Your task to perform on an android device: Clear the cart on target.com. Search for logitech g502 on target.com, select the first entry, and add it to the cart. Image 0: 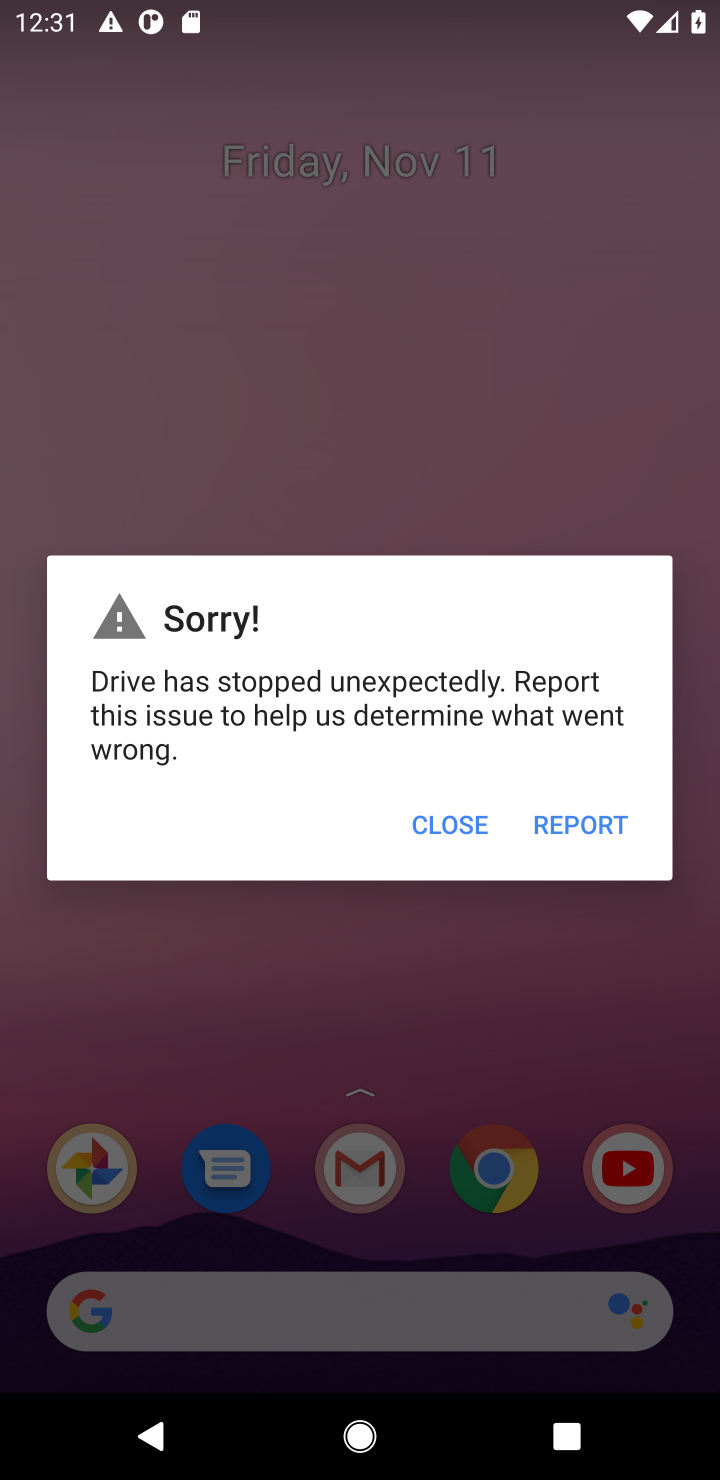
Step 0: press home button
Your task to perform on an android device: Clear the cart on target.com. Search for logitech g502 on target.com, select the first entry, and add it to the cart. Image 1: 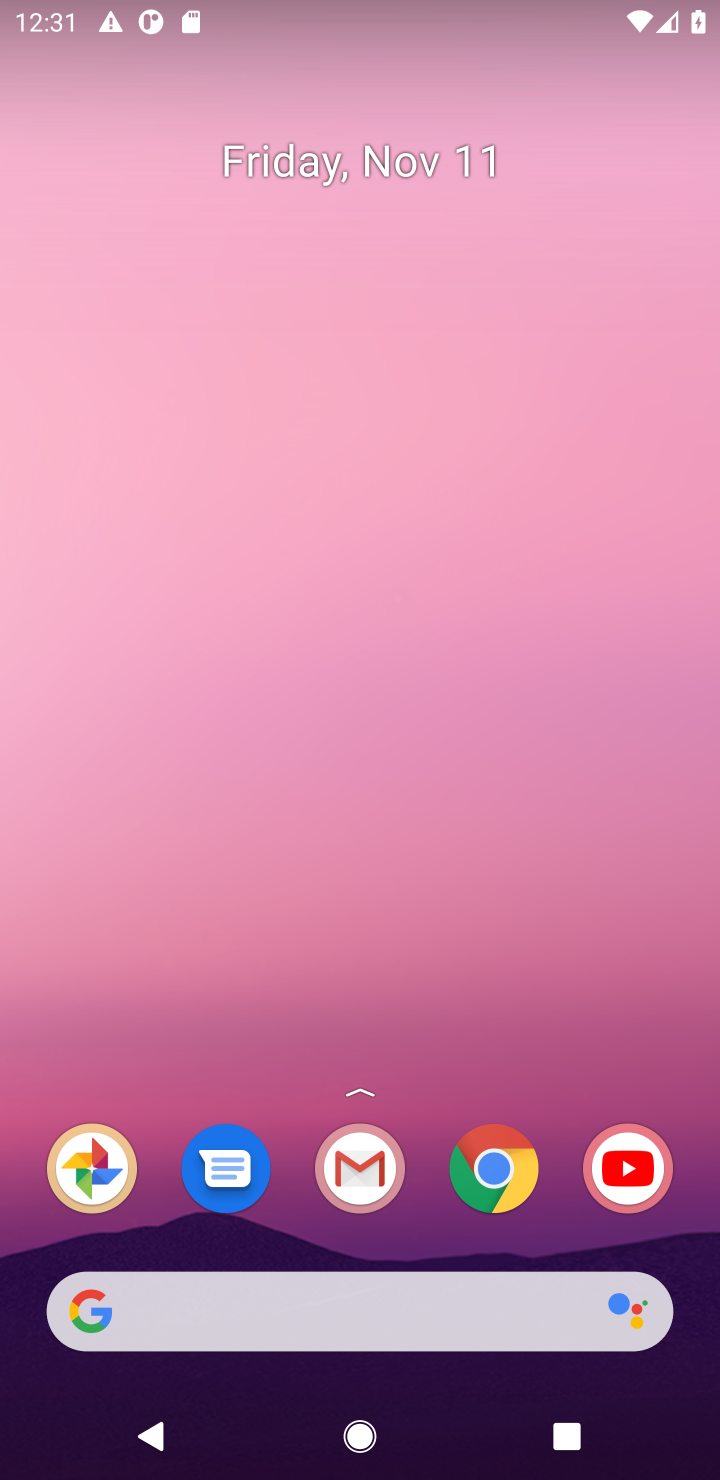
Step 1: click (490, 1175)
Your task to perform on an android device: Clear the cart on target.com. Search for logitech g502 on target.com, select the first entry, and add it to the cart. Image 2: 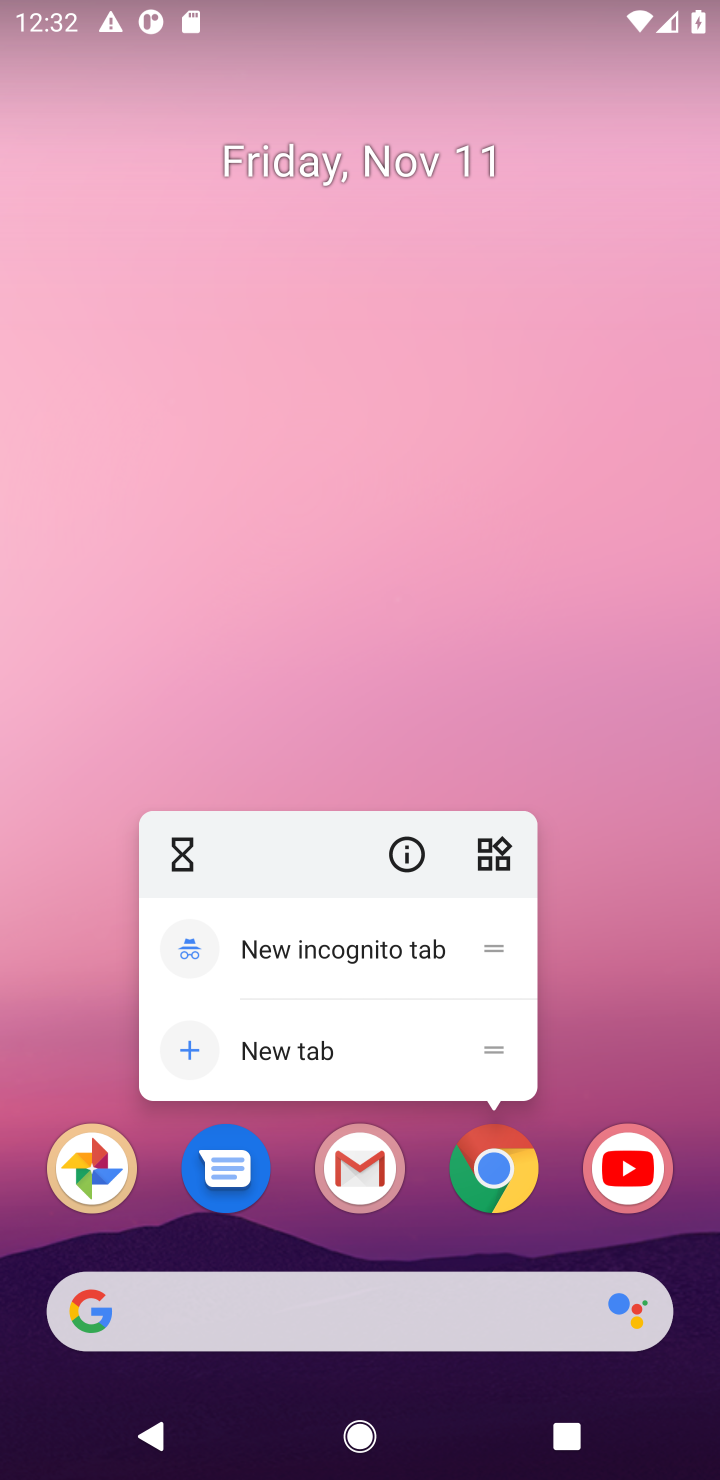
Step 2: click (490, 1175)
Your task to perform on an android device: Clear the cart on target.com. Search for logitech g502 on target.com, select the first entry, and add it to the cart. Image 3: 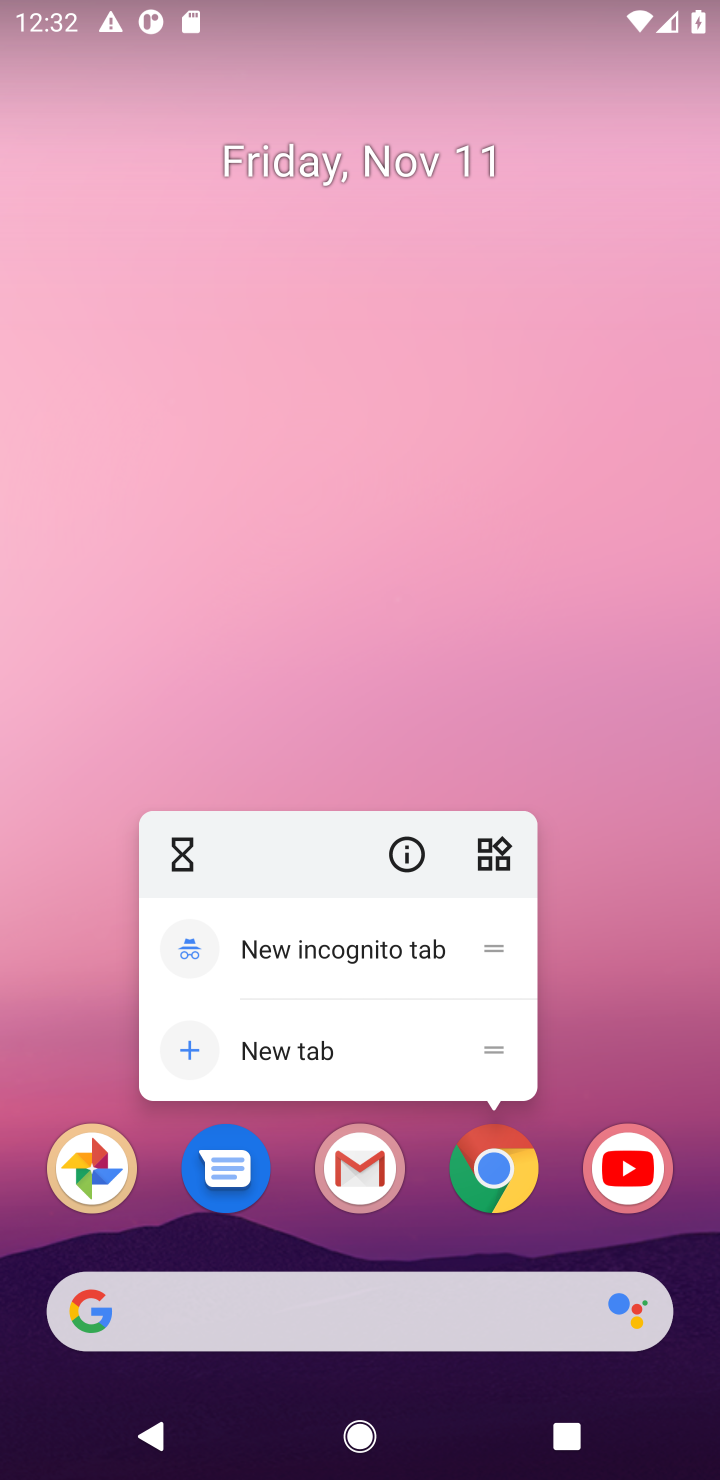
Step 3: click (488, 1176)
Your task to perform on an android device: Clear the cart on target.com. Search for logitech g502 on target.com, select the first entry, and add it to the cart. Image 4: 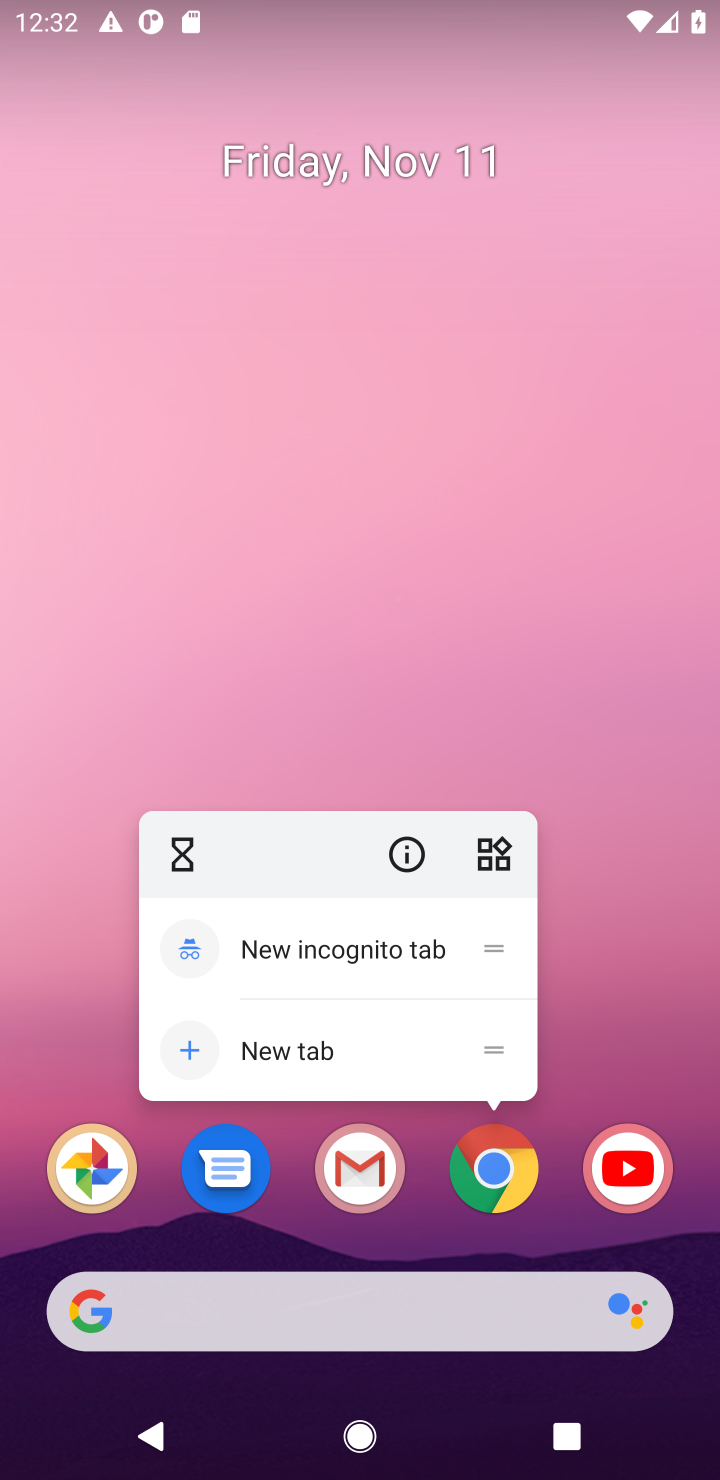
Step 4: click (520, 1174)
Your task to perform on an android device: Clear the cart on target.com. Search for logitech g502 on target.com, select the first entry, and add it to the cart. Image 5: 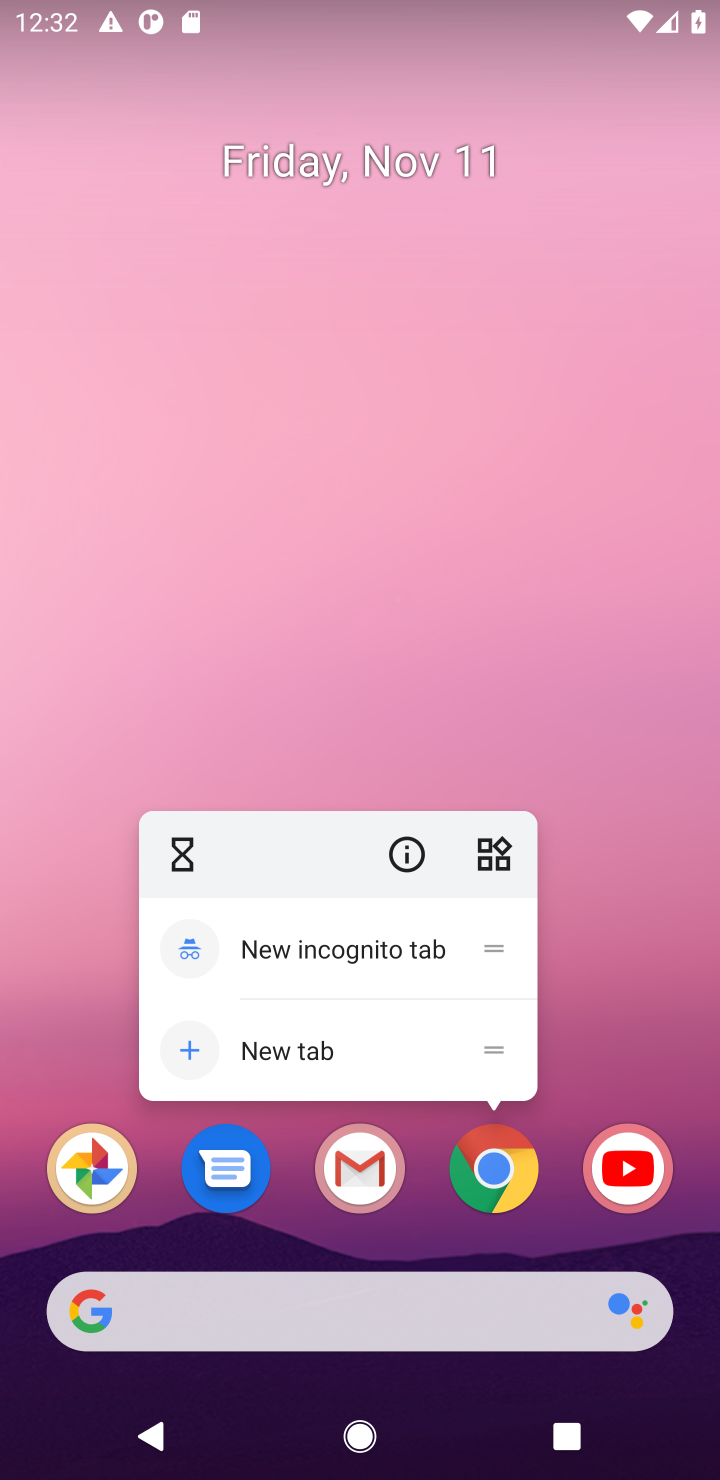
Step 5: click (484, 1183)
Your task to perform on an android device: Clear the cart on target.com. Search for logitech g502 on target.com, select the first entry, and add it to the cart. Image 6: 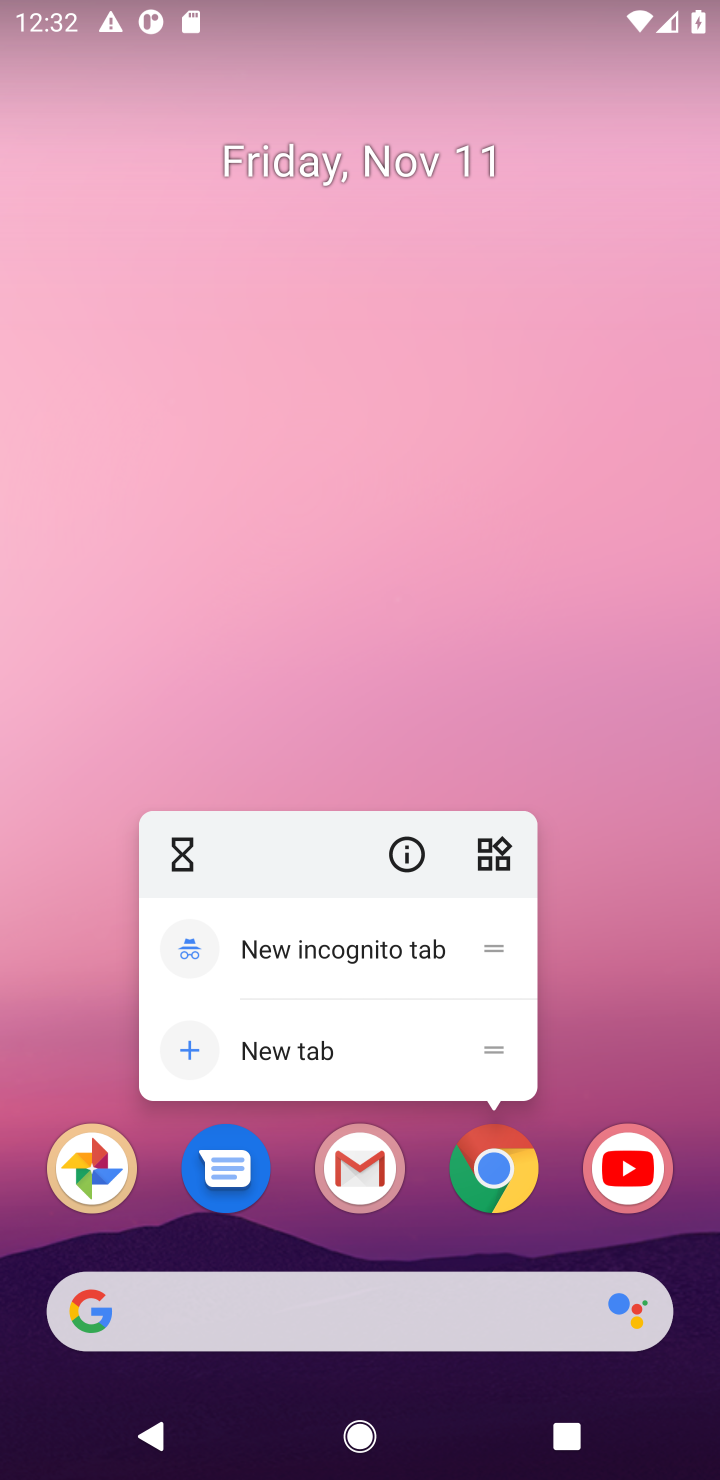
Step 6: click (504, 1183)
Your task to perform on an android device: Clear the cart on target.com. Search for logitech g502 on target.com, select the first entry, and add it to the cart. Image 7: 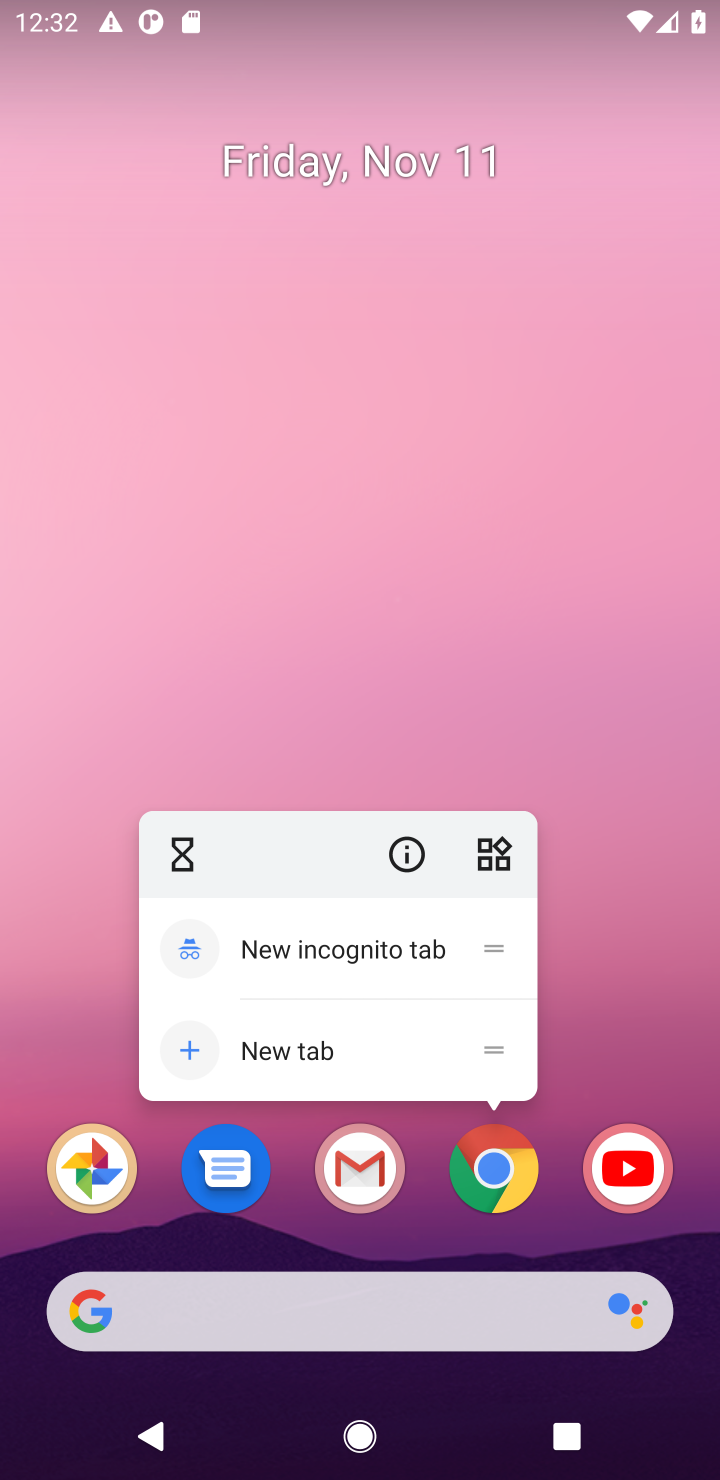
Step 7: click (504, 1183)
Your task to perform on an android device: Clear the cart on target.com. Search for logitech g502 on target.com, select the first entry, and add it to the cart. Image 8: 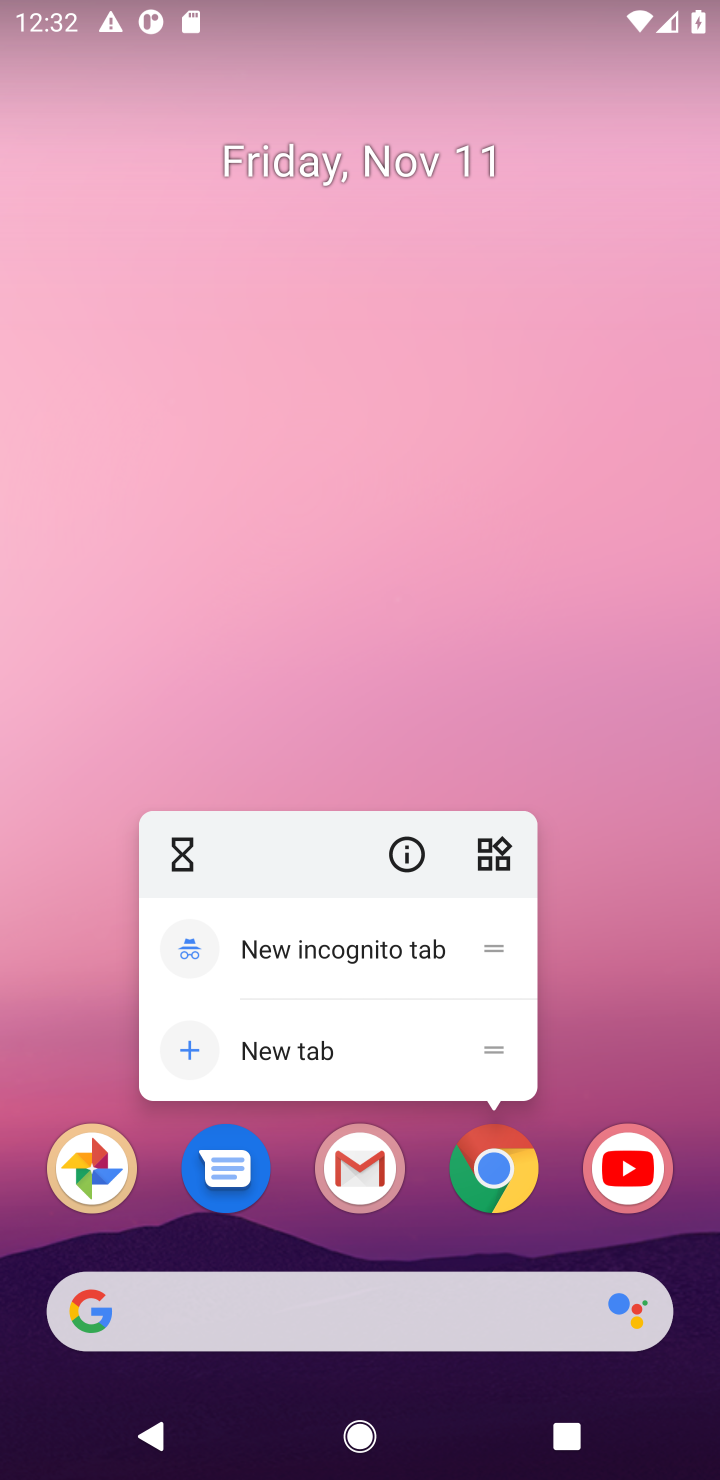
Step 8: click (512, 1162)
Your task to perform on an android device: Clear the cart on target.com. Search for logitech g502 on target.com, select the first entry, and add it to the cart. Image 9: 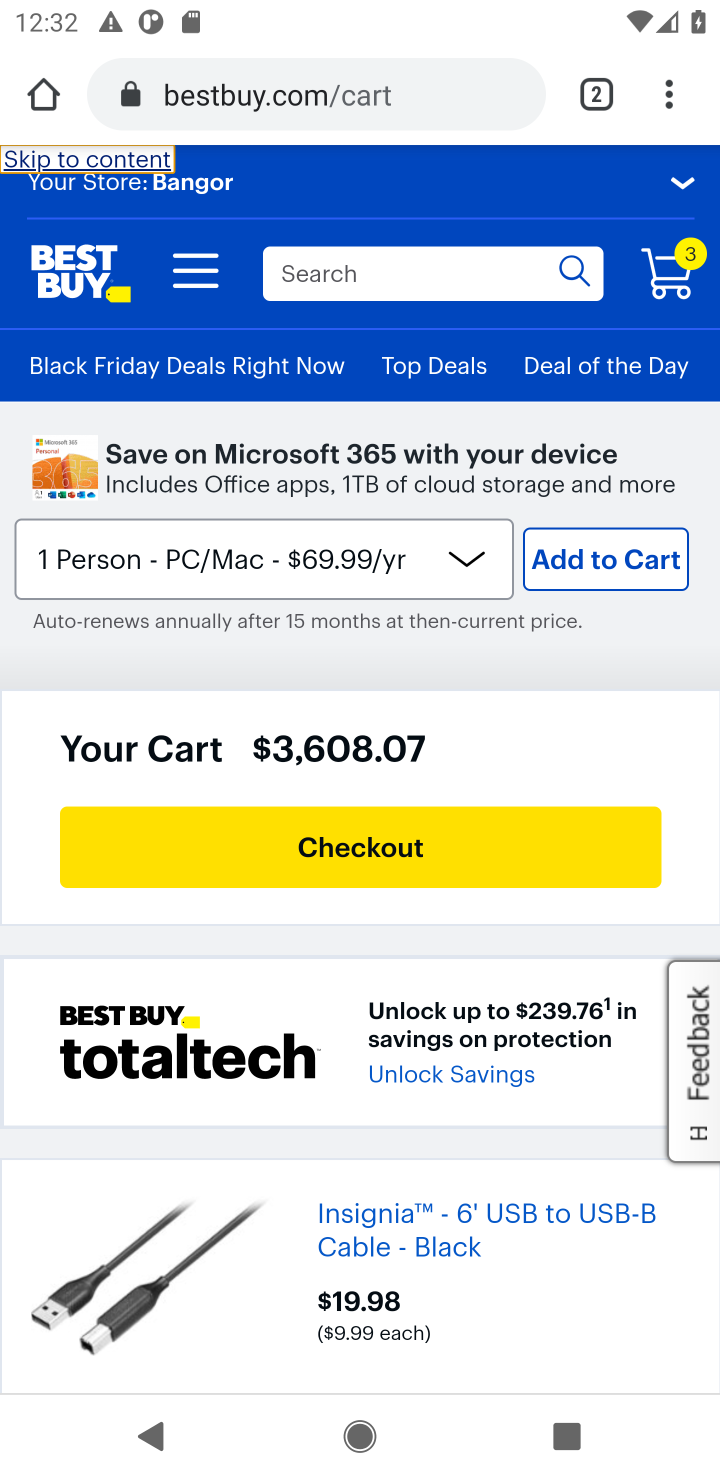
Step 9: click (303, 116)
Your task to perform on an android device: Clear the cart on target.com. Search for logitech g502 on target.com, select the first entry, and add it to the cart. Image 10: 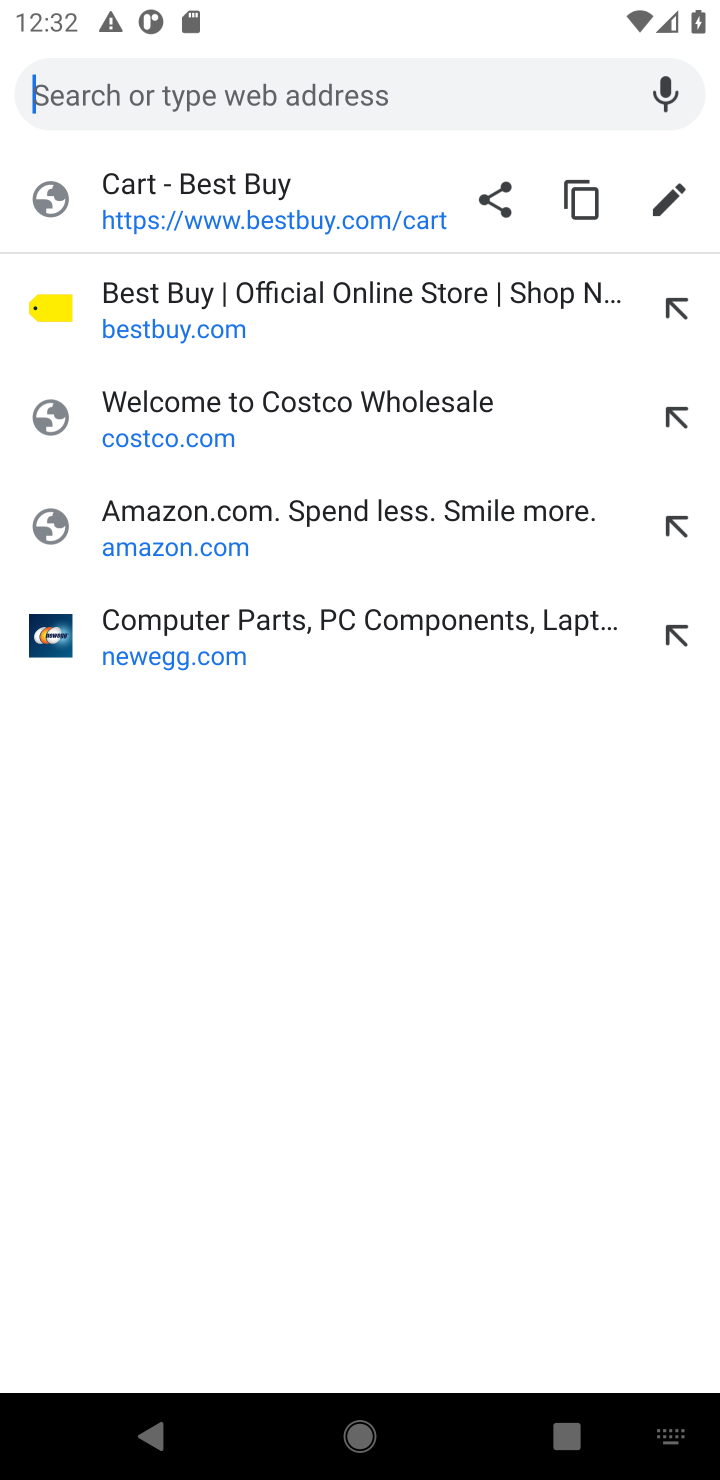
Step 10: type "target.com"
Your task to perform on an android device: Clear the cart on target.com. Search for logitech g502 on target.com, select the first entry, and add it to the cart. Image 11: 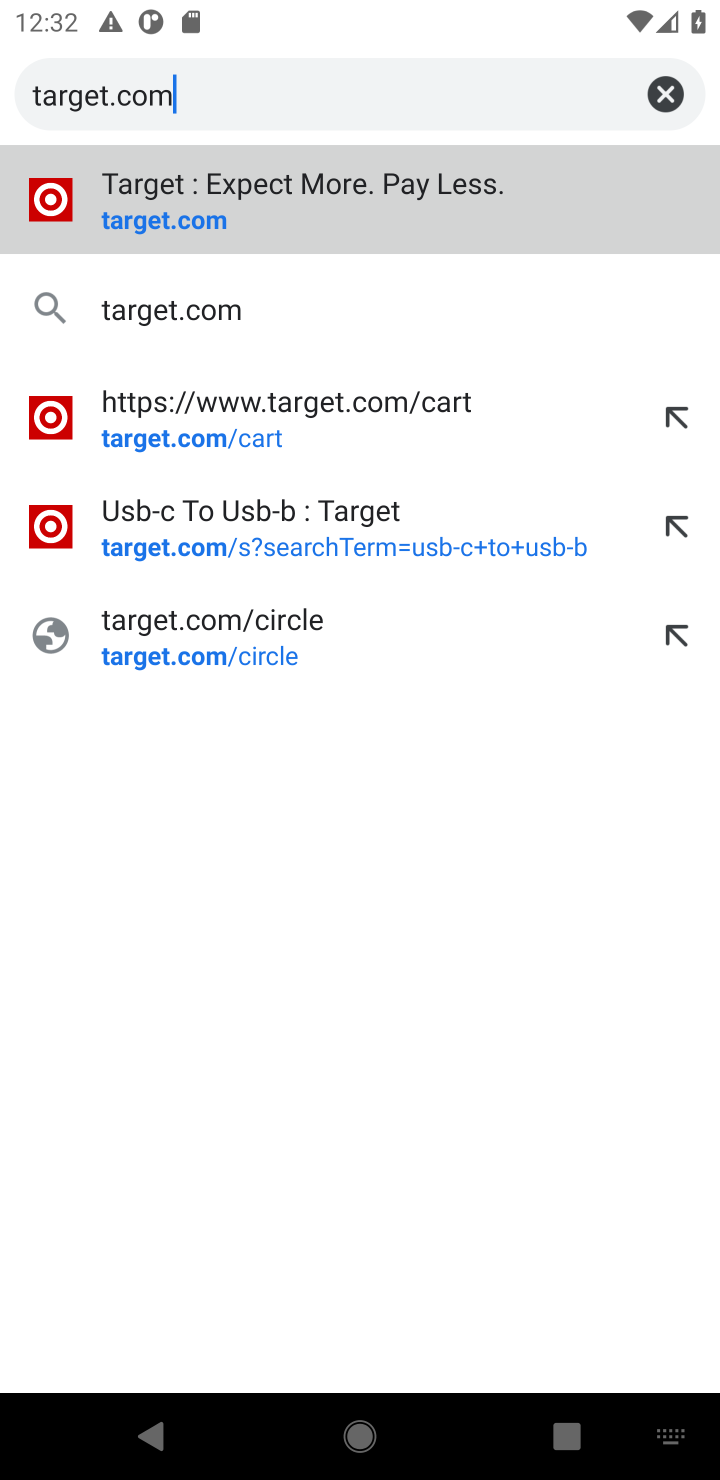
Step 11: click (157, 100)
Your task to perform on an android device: Clear the cart on target.com. Search for logitech g502 on target.com, select the first entry, and add it to the cart. Image 12: 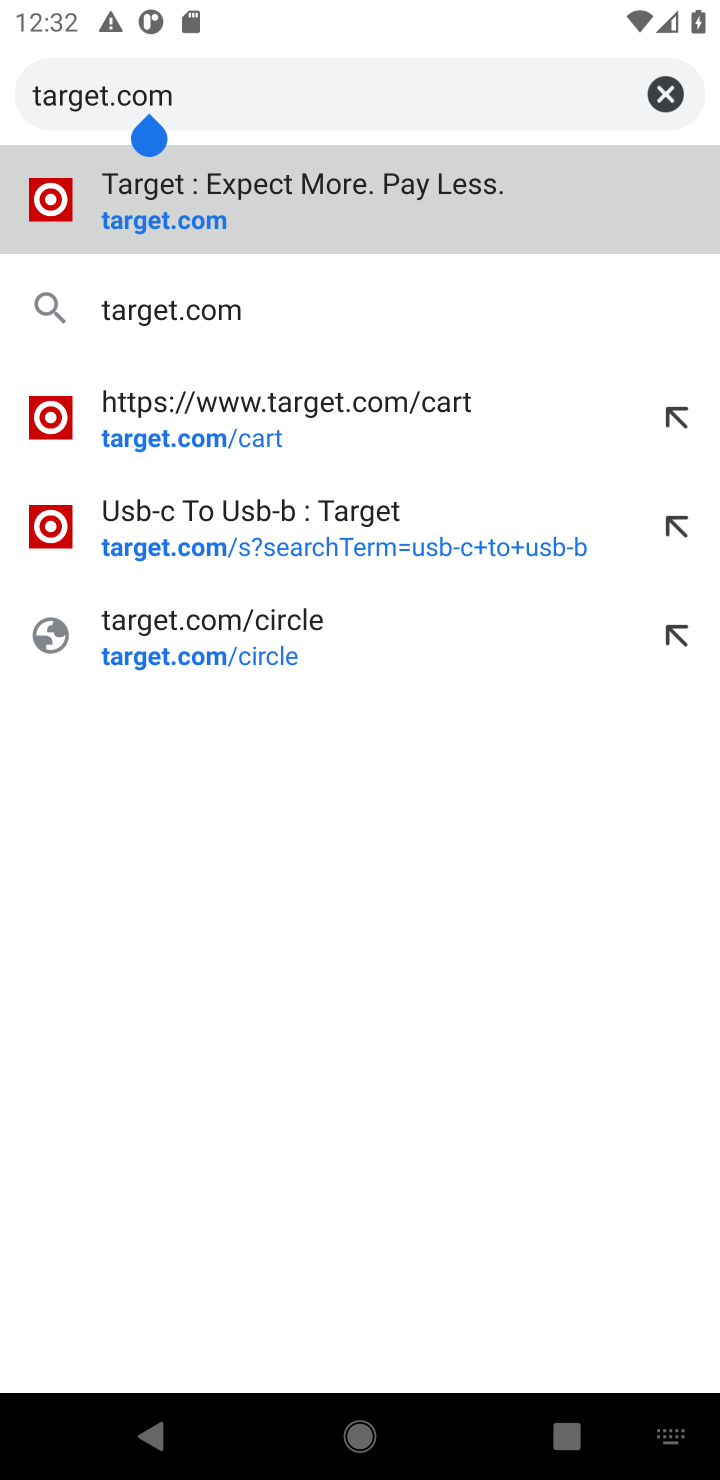
Step 12: click (190, 203)
Your task to perform on an android device: Clear the cart on target.com. Search for logitech g502 on target.com, select the first entry, and add it to the cart. Image 13: 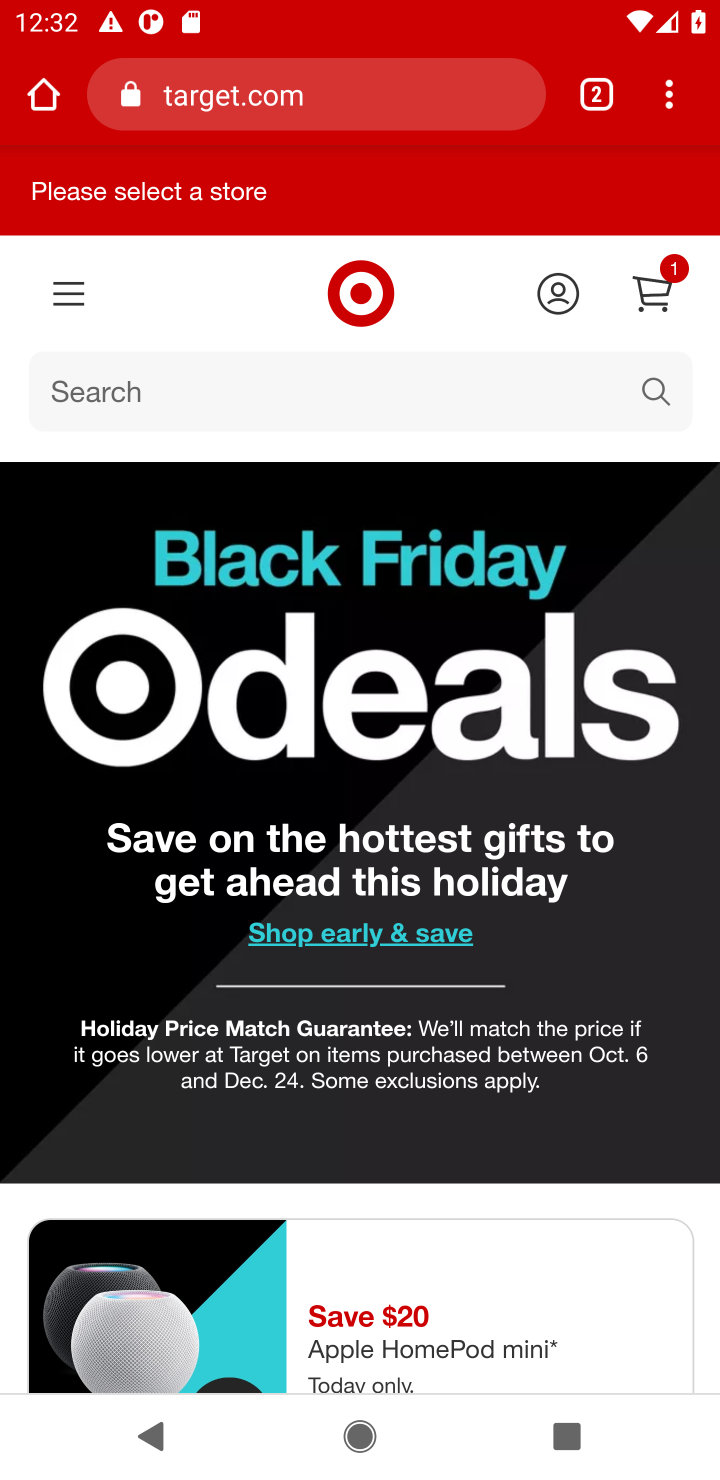
Step 13: click (663, 289)
Your task to perform on an android device: Clear the cart on target.com. Search for logitech g502 on target.com, select the first entry, and add it to the cart. Image 14: 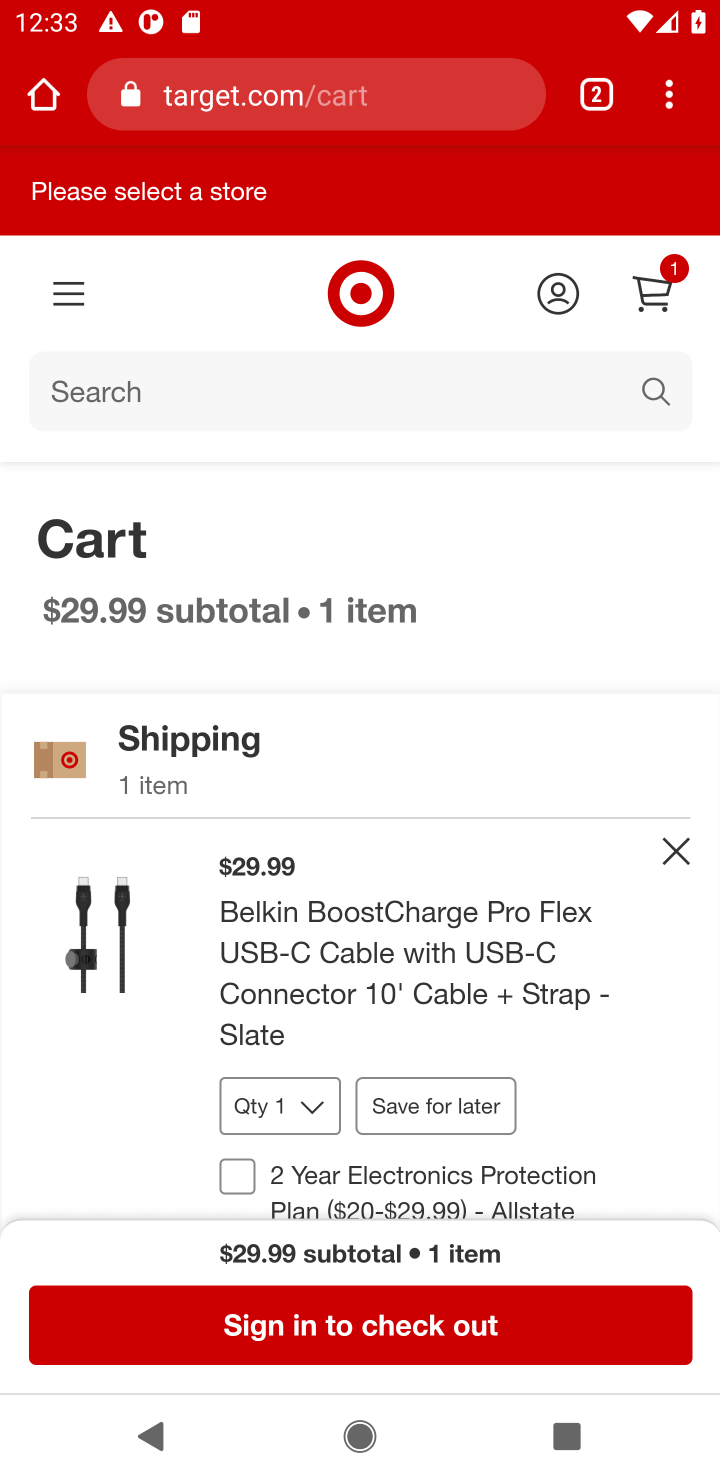
Step 14: click (671, 852)
Your task to perform on an android device: Clear the cart on target.com. Search for logitech g502 on target.com, select the first entry, and add it to the cart. Image 15: 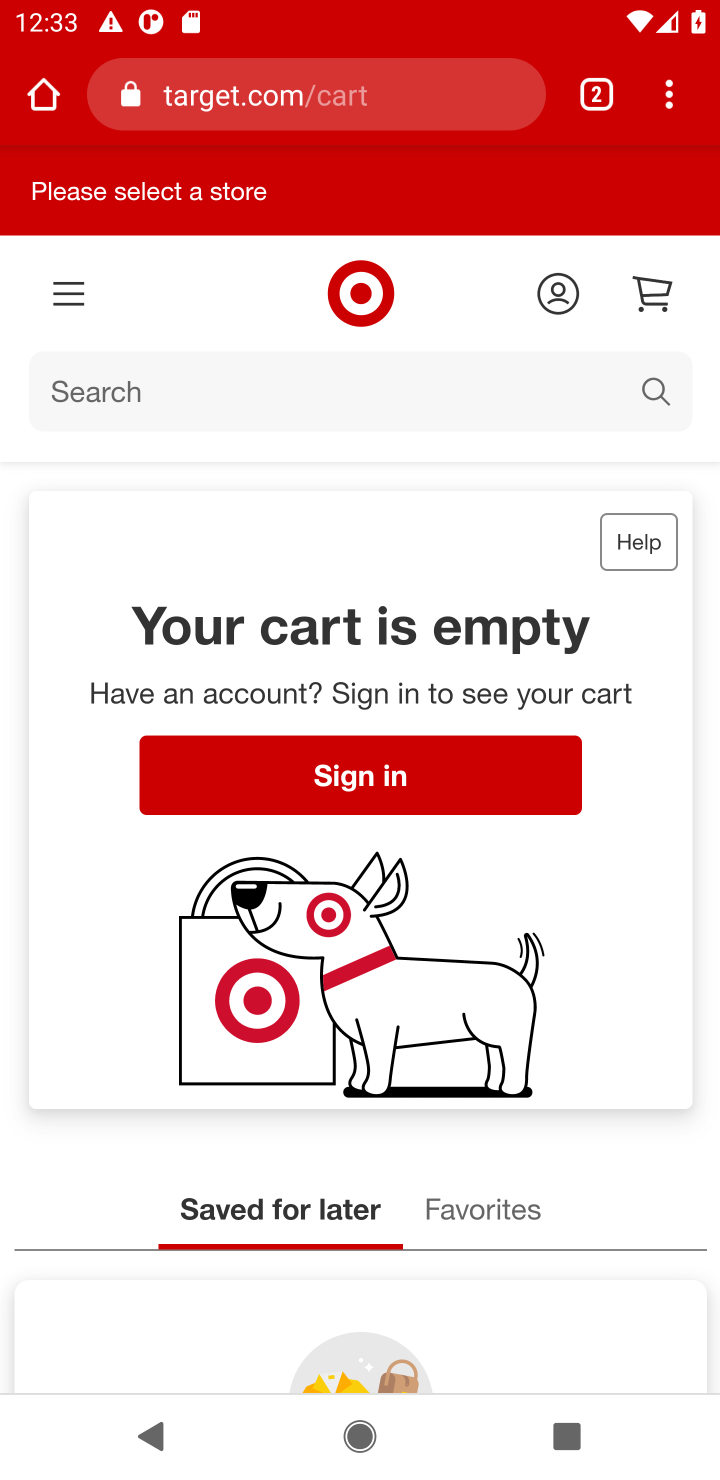
Step 15: click (651, 396)
Your task to perform on an android device: Clear the cart on target.com. Search for logitech g502 on target.com, select the first entry, and add it to the cart. Image 16: 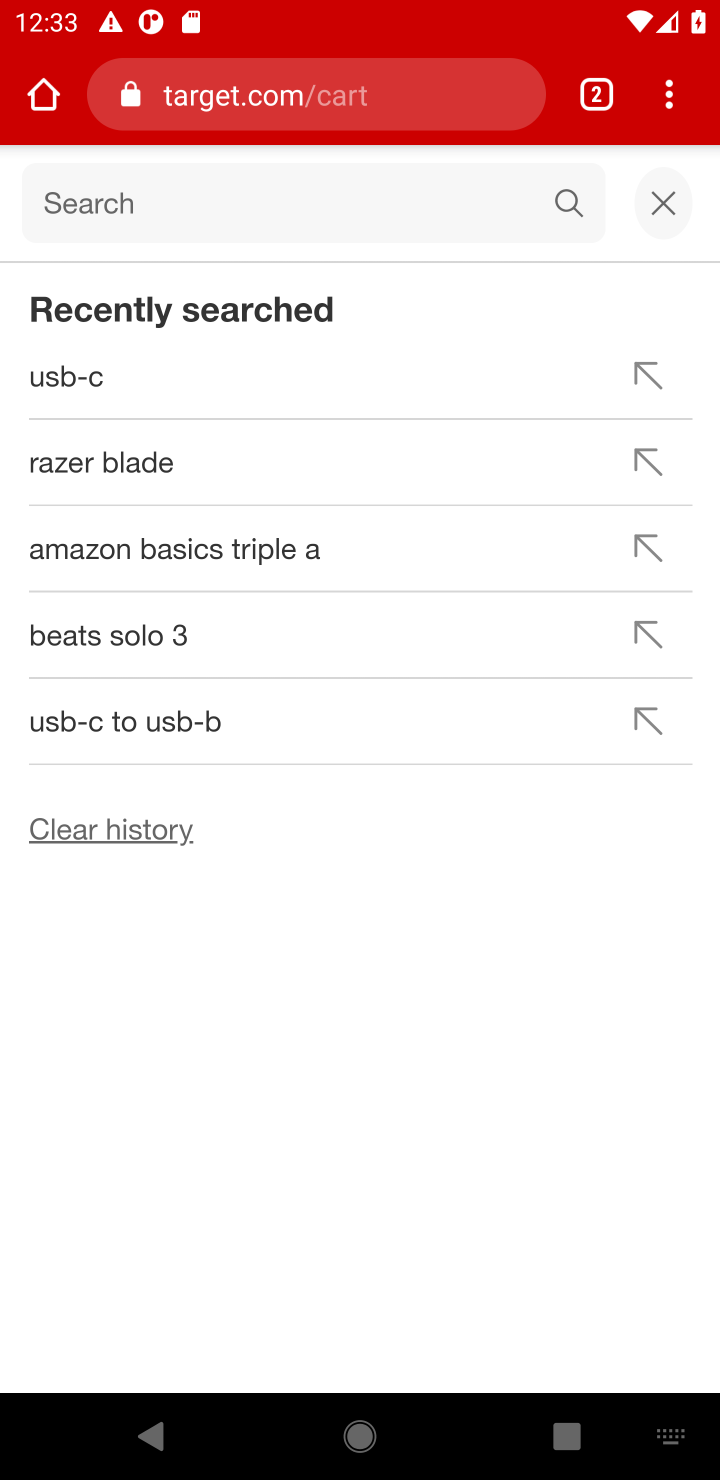
Step 16: type "logitech g502"
Your task to perform on an android device: Clear the cart on target.com. Search for logitech g502 on target.com, select the first entry, and add it to the cart. Image 17: 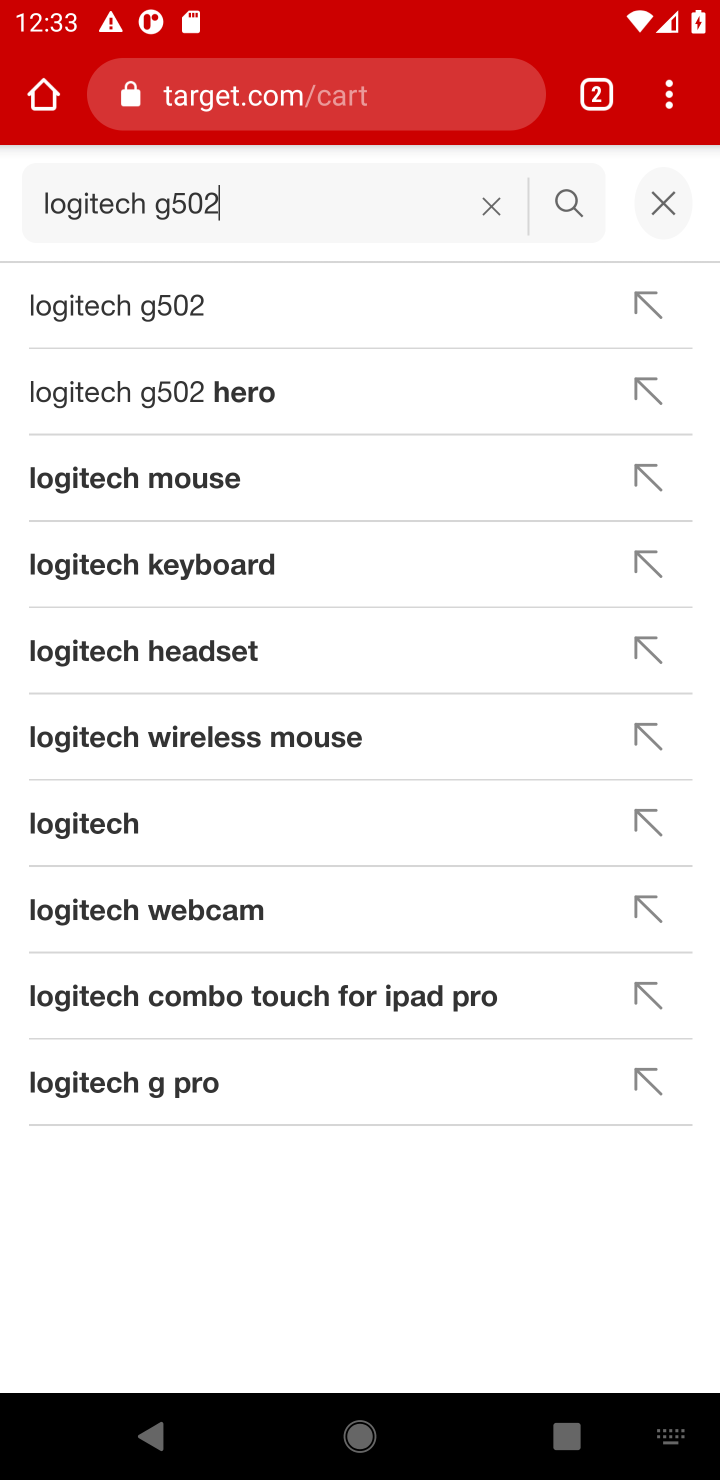
Step 17: click (186, 310)
Your task to perform on an android device: Clear the cart on target.com. Search for logitech g502 on target.com, select the first entry, and add it to the cart. Image 18: 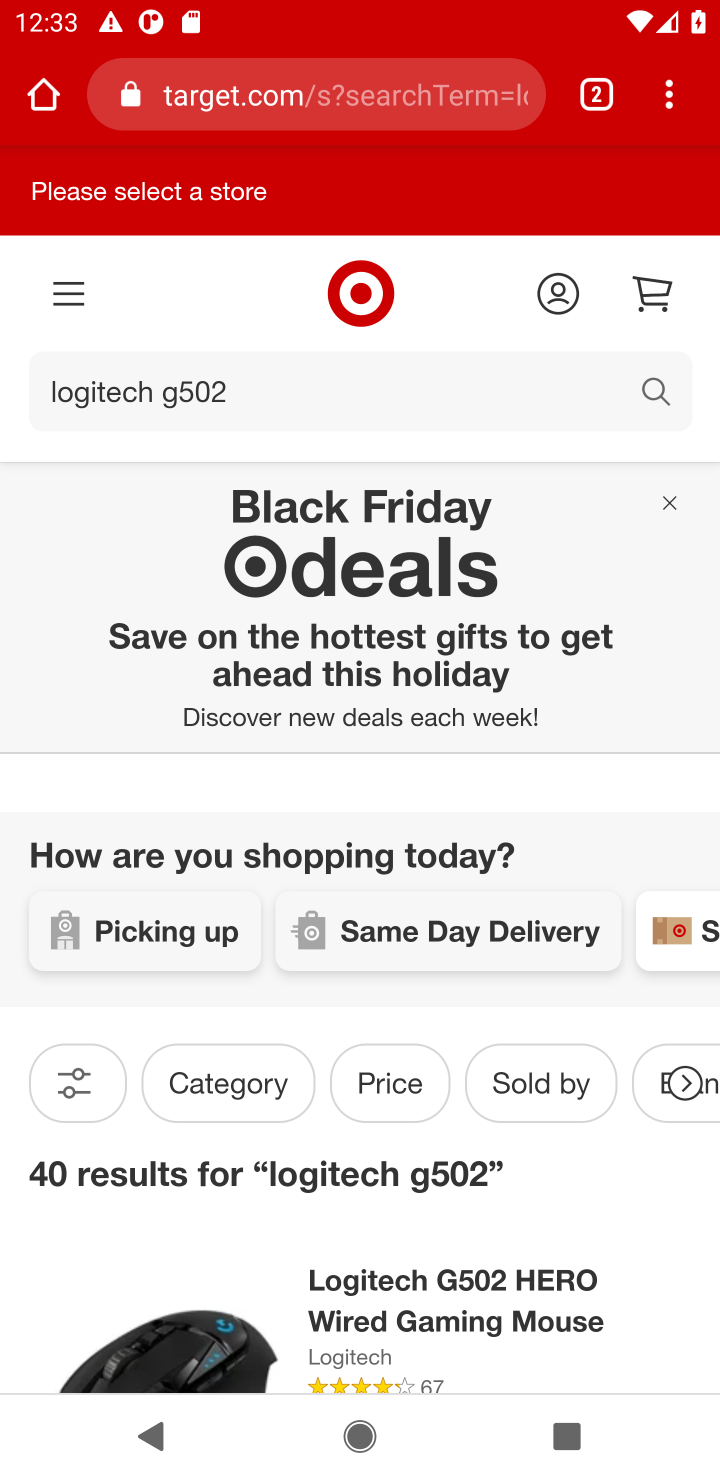
Step 18: drag from (380, 1273) to (415, 754)
Your task to perform on an android device: Clear the cart on target.com. Search for logitech g502 on target.com, select the first entry, and add it to the cart. Image 19: 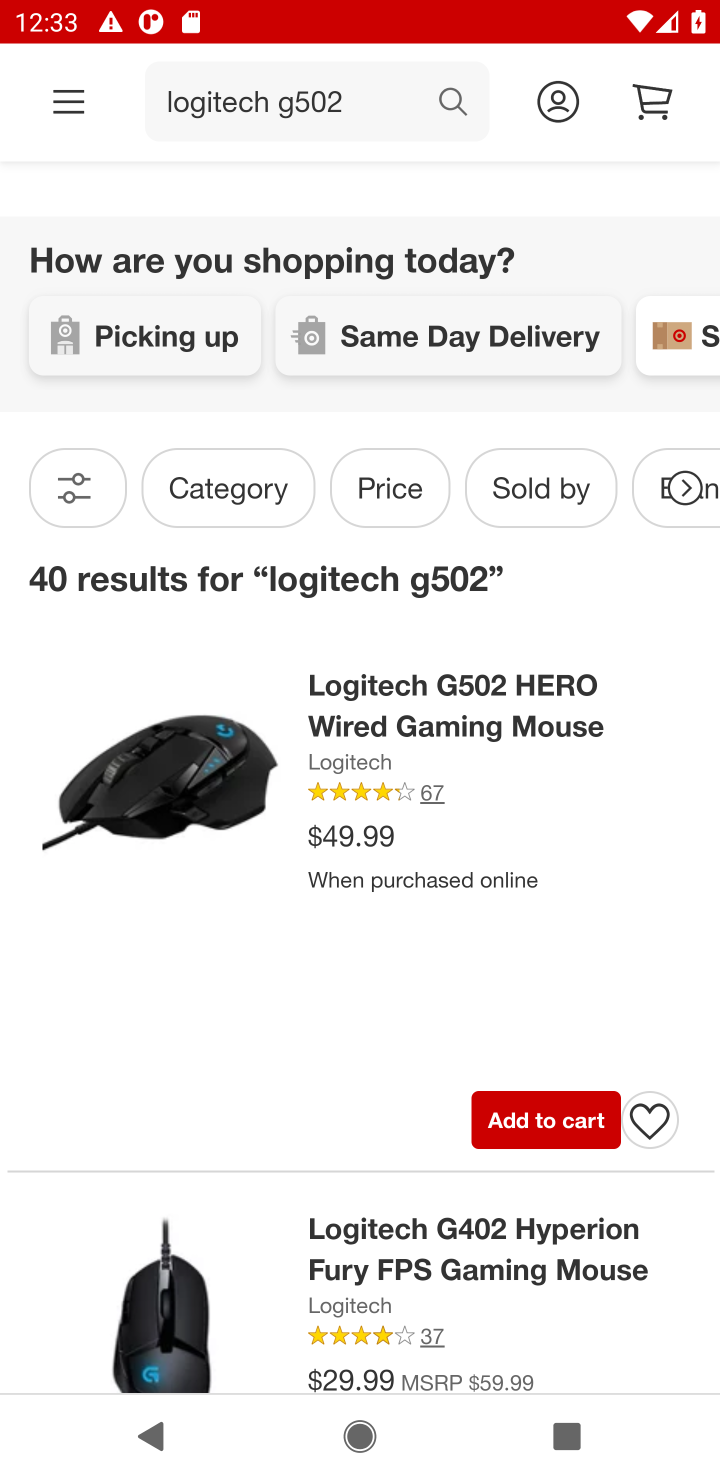
Step 19: click (384, 775)
Your task to perform on an android device: Clear the cart on target.com. Search for logitech g502 on target.com, select the first entry, and add it to the cart. Image 20: 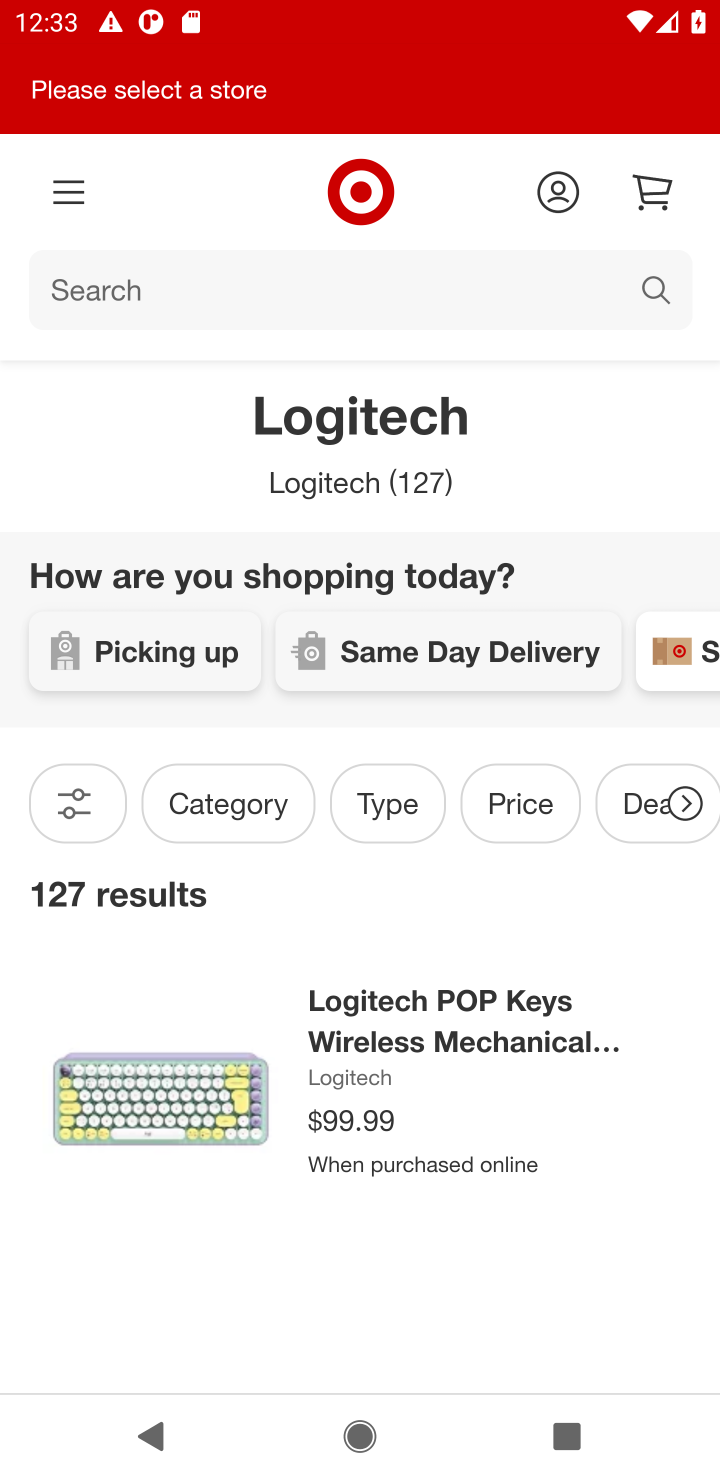
Step 20: press back button
Your task to perform on an android device: Clear the cart on target.com. Search for logitech g502 on target.com, select the first entry, and add it to the cart. Image 21: 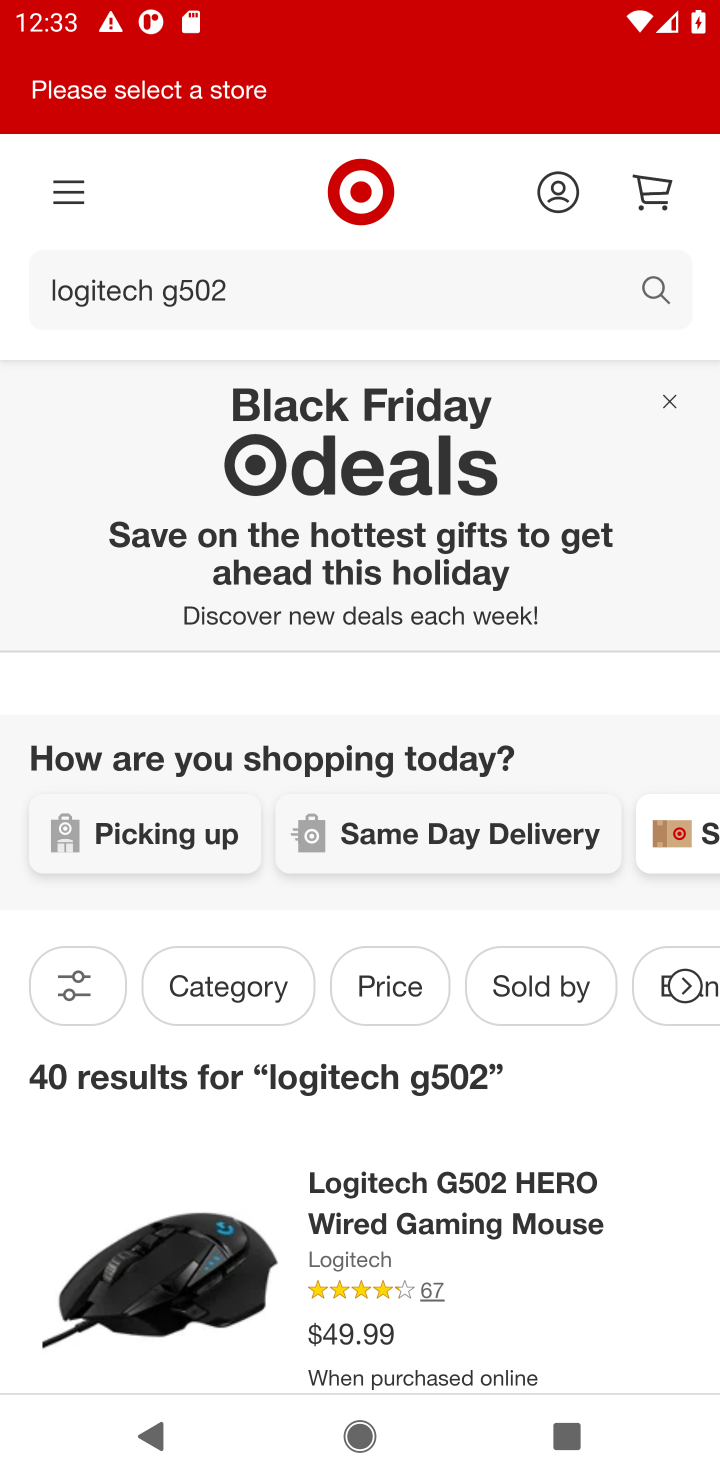
Step 21: drag from (457, 1250) to (478, 582)
Your task to perform on an android device: Clear the cart on target.com. Search for logitech g502 on target.com, select the first entry, and add it to the cart. Image 22: 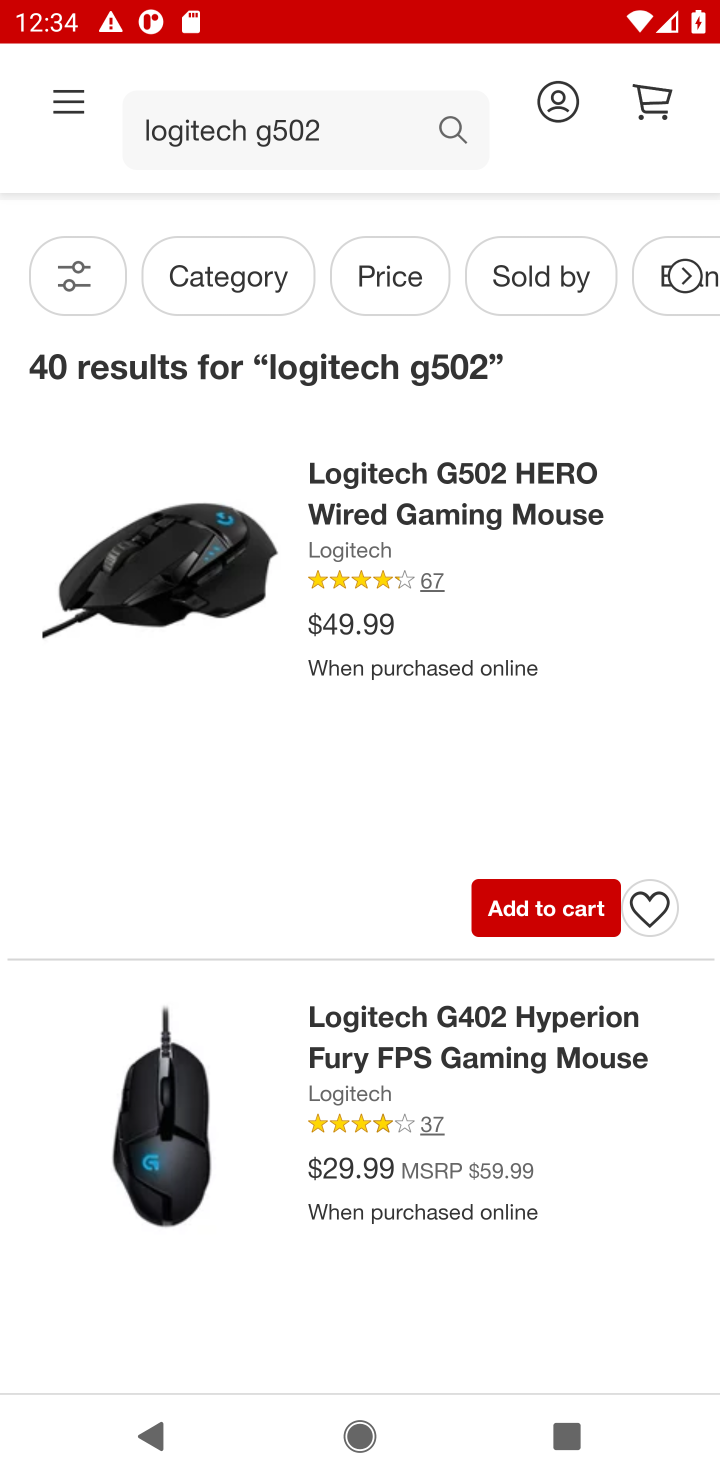
Step 22: click (144, 618)
Your task to perform on an android device: Clear the cart on target.com. Search for logitech g502 on target.com, select the first entry, and add it to the cart. Image 23: 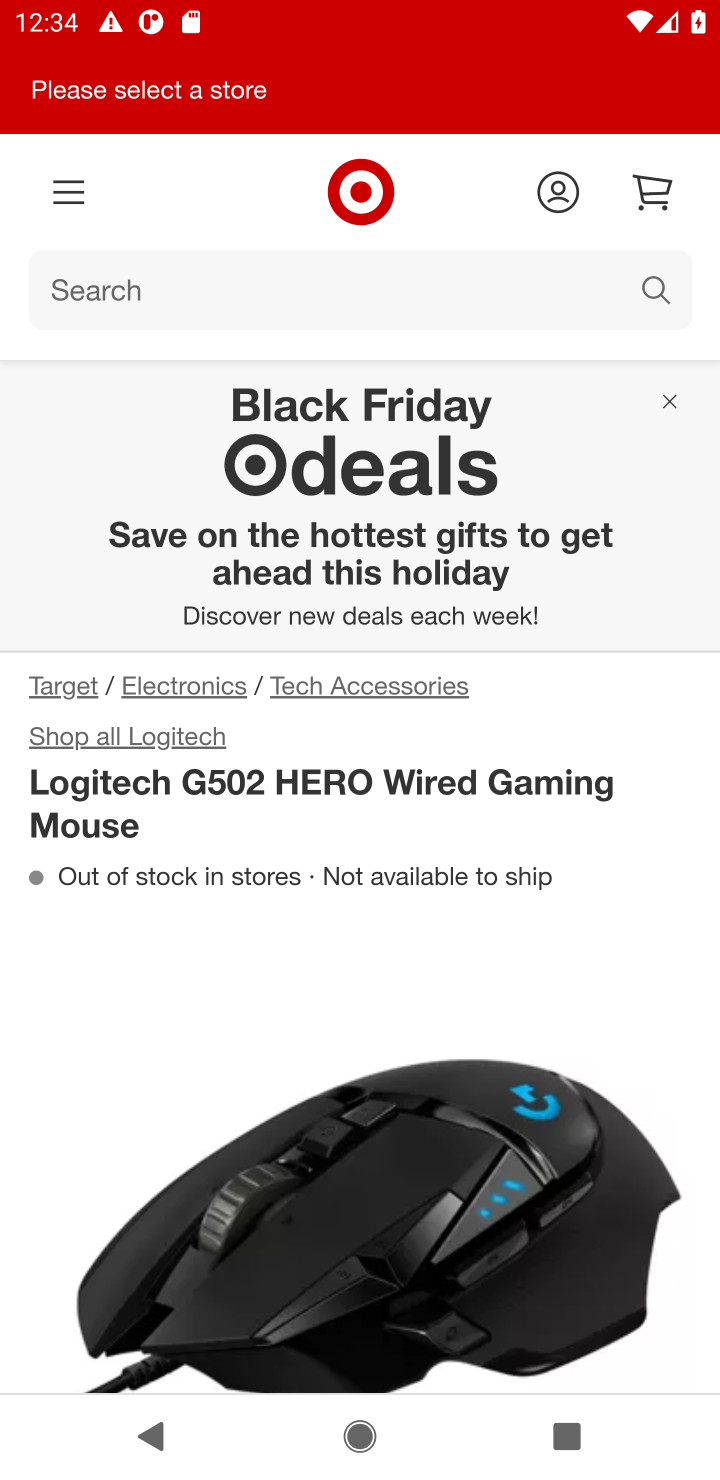
Step 23: drag from (296, 1026) to (354, 408)
Your task to perform on an android device: Clear the cart on target.com. Search for logitech g502 on target.com, select the first entry, and add it to the cart. Image 24: 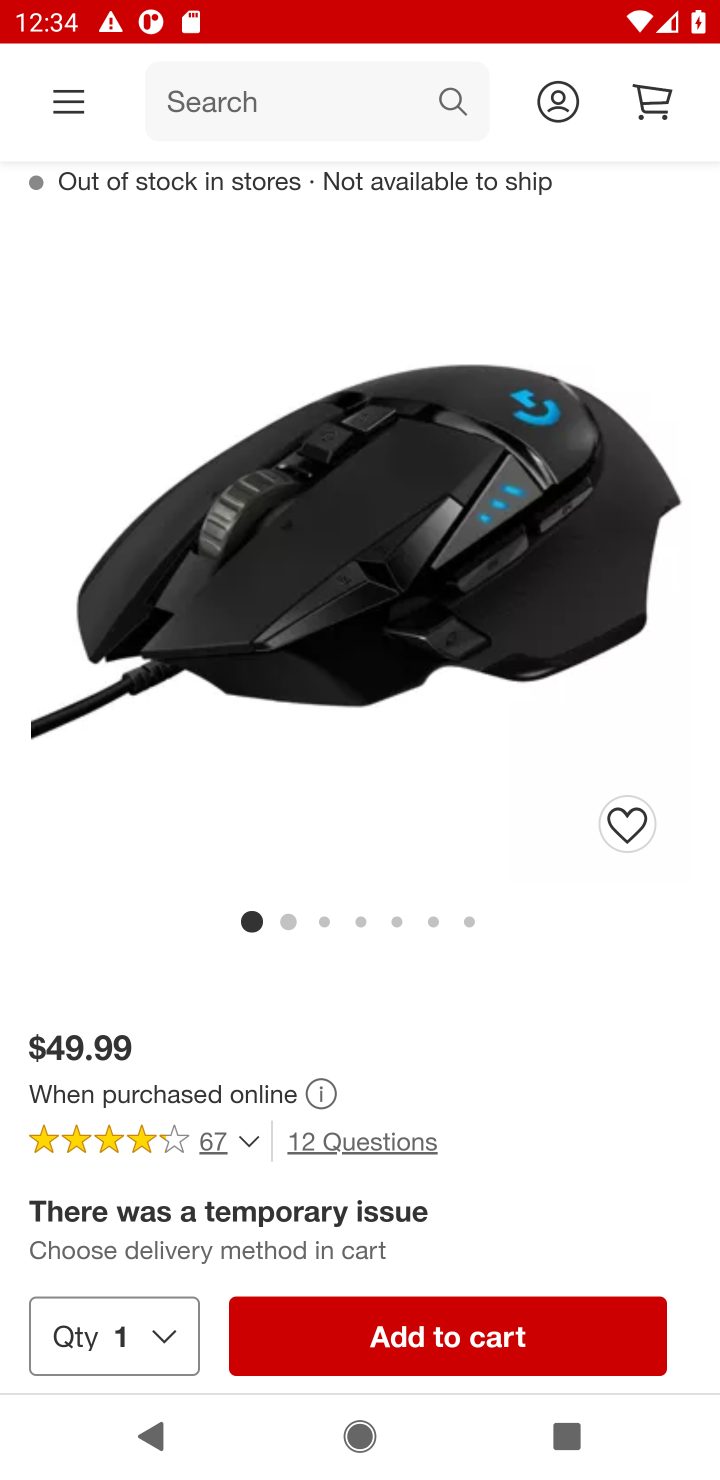
Step 24: click (431, 1326)
Your task to perform on an android device: Clear the cart on target.com. Search for logitech g502 on target.com, select the first entry, and add it to the cart. Image 25: 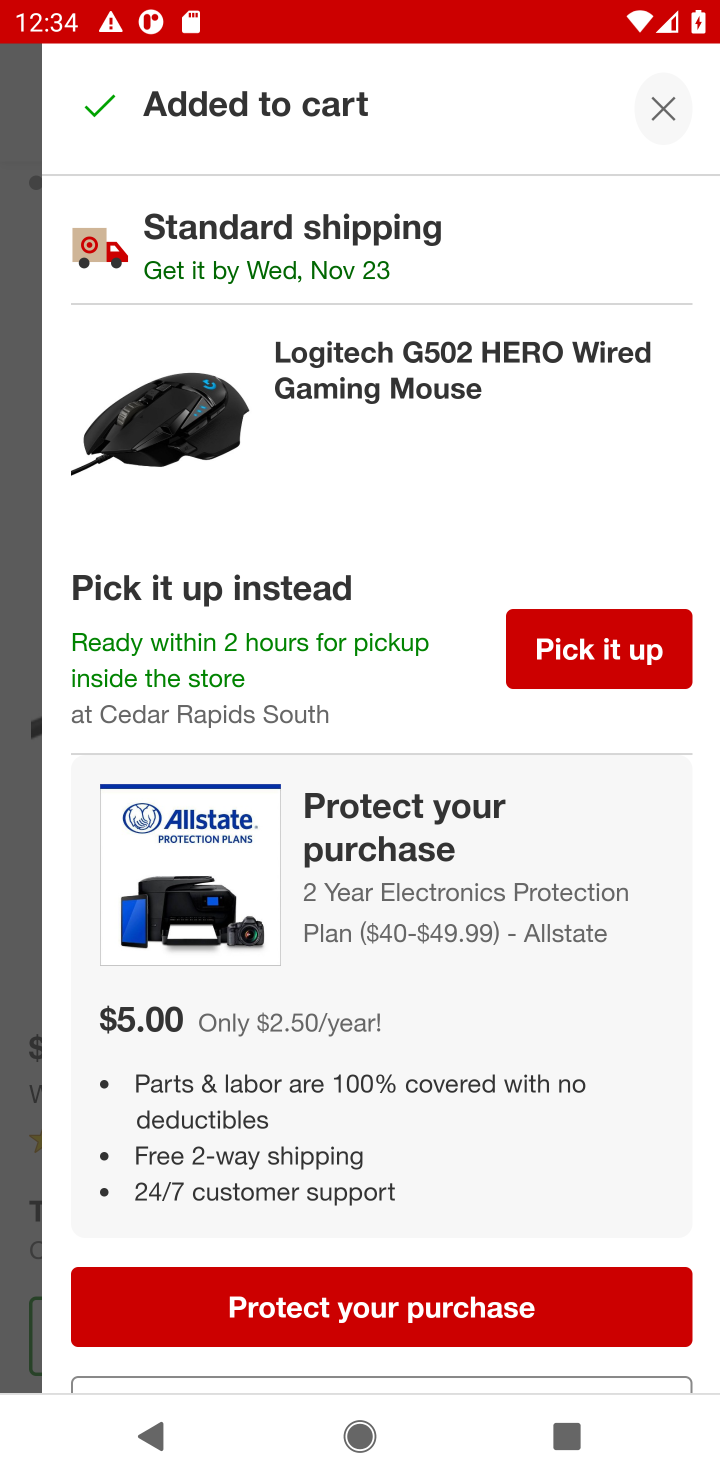
Step 25: task complete